Your task to perform on an android device: delete browsing data in the chrome app Image 0: 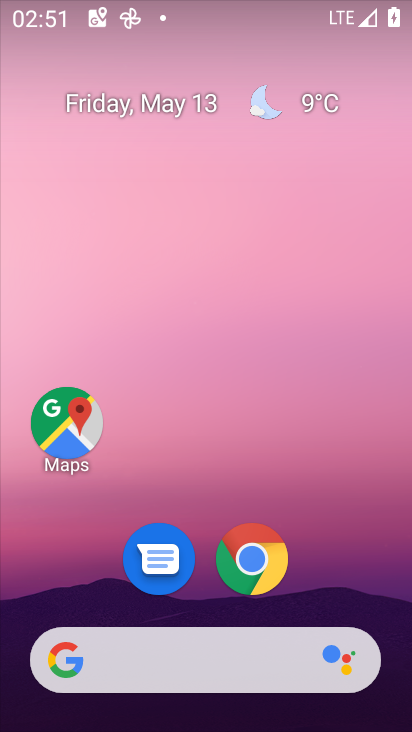
Step 0: click (249, 562)
Your task to perform on an android device: delete browsing data in the chrome app Image 1: 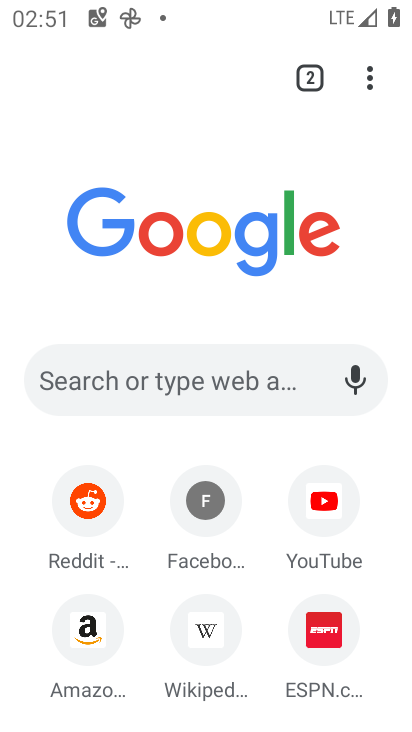
Step 1: click (366, 76)
Your task to perform on an android device: delete browsing data in the chrome app Image 2: 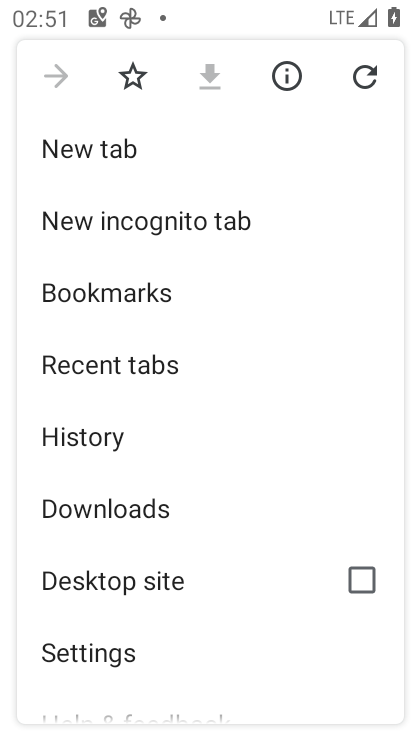
Step 2: drag from (224, 614) to (255, 319)
Your task to perform on an android device: delete browsing data in the chrome app Image 3: 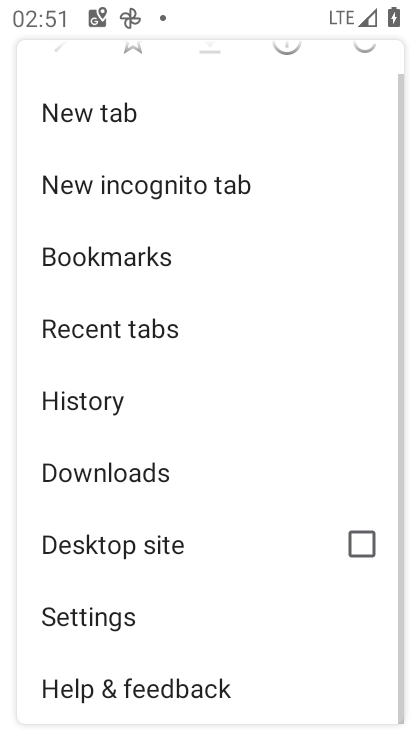
Step 3: drag from (273, 664) to (289, 411)
Your task to perform on an android device: delete browsing data in the chrome app Image 4: 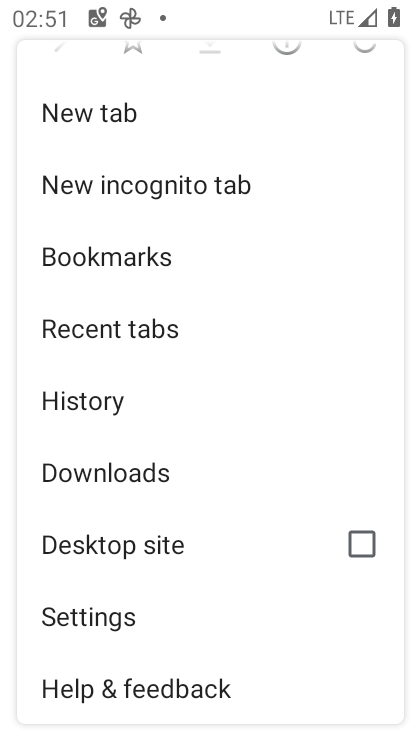
Step 4: click (93, 402)
Your task to perform on an android device: delete browsing data in the chrome app Image 5: 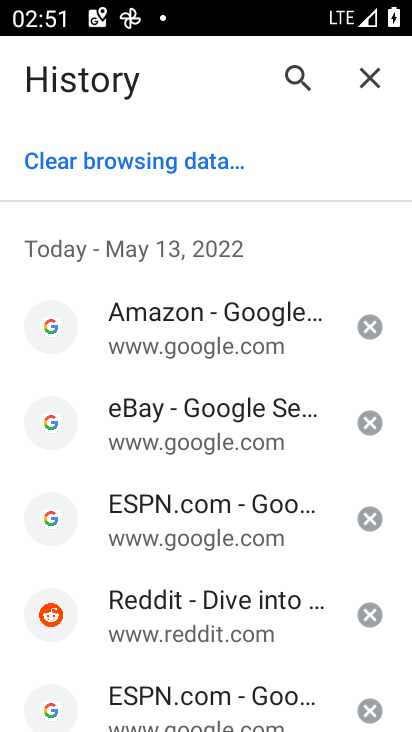
Step 5: click (50, 159)
Your task to perform on an android device: delete browsing data in the chrome app Image 6: 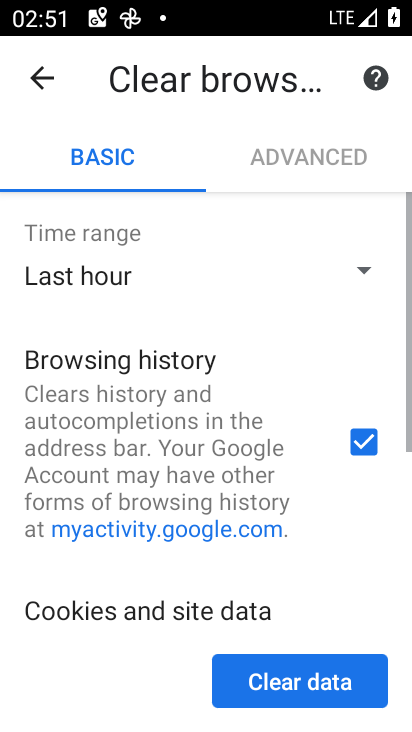
Step 6: click (364, 682)
Your task to perform on an android device: delete browsing data in the chrome app Image 7: 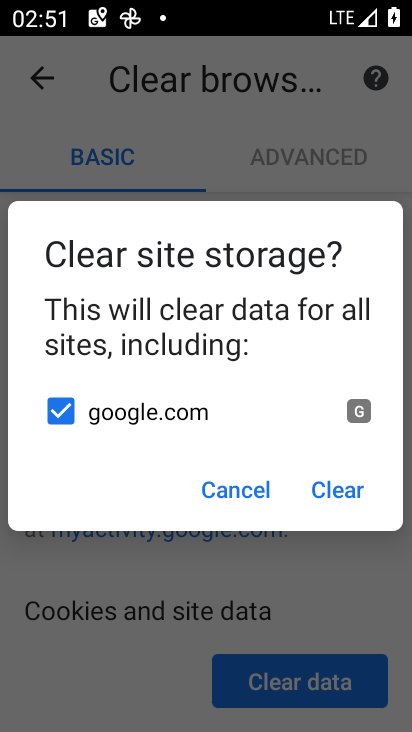
Step 7: click (336, 488)
Your task to perform on an android device: delete browsing data in the chrome app Image 8: 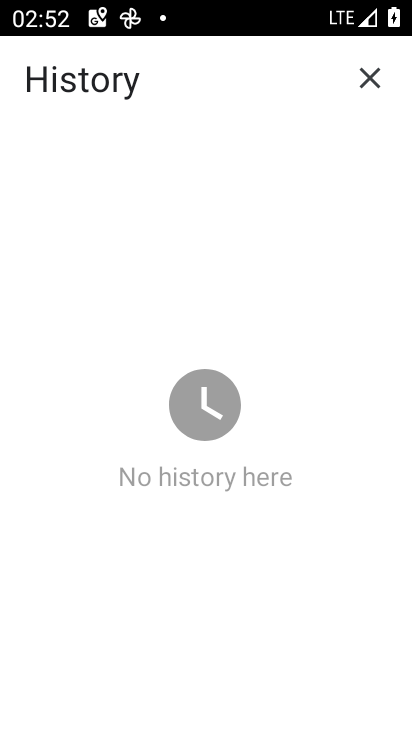
Step 8: task complete